Your task to perform on an android device: delete browsing data in the chrome app Image 0: 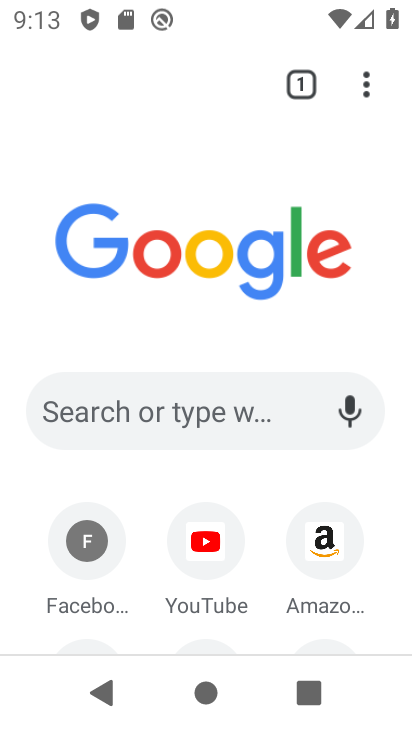
Step 0: press home button
Your task to perform on an android device: delete browsing data in the chrome app Image 1: 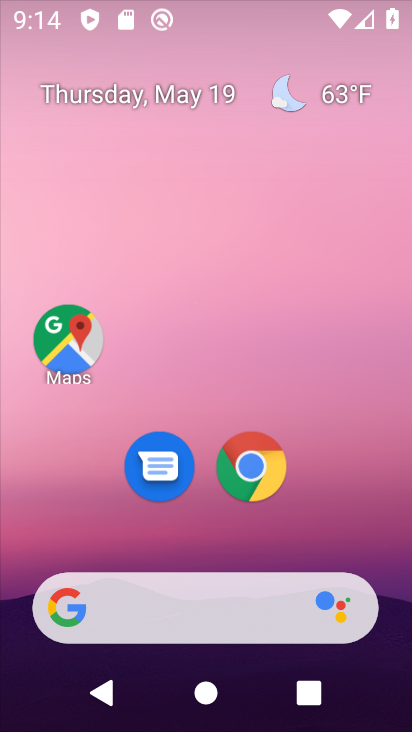
Step 1: drag from (398, 621) to (252, 76)
Your task to perform on an android device: delete browsing data in the chrome app Image 2: 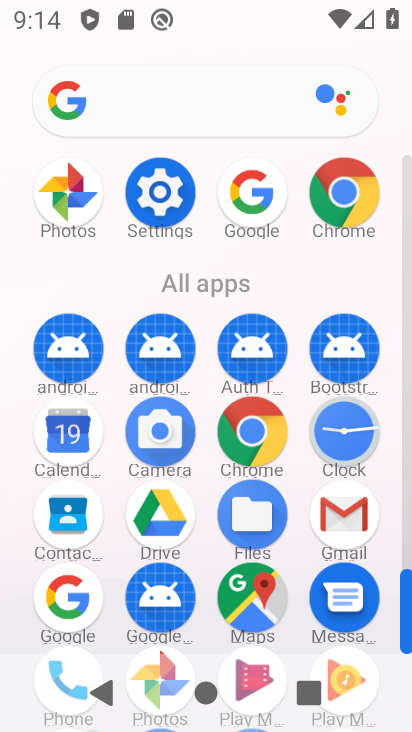
Step 2: click (331, 188)
Your task to perform on an android device: delete browsing data in the chrome app Image 3: 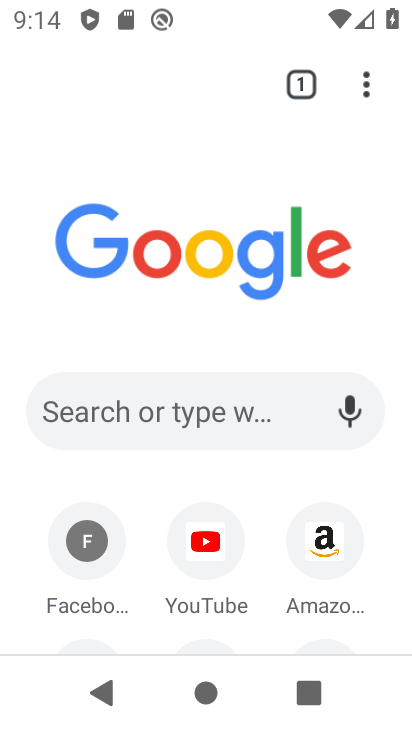
Step 3: click (362, 78)
Your task to perform on an android device: delete browsing data in the chrome app Image 4: 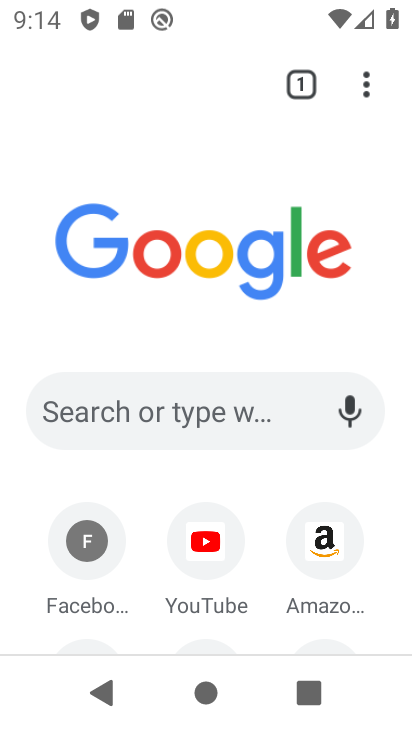
Step 4: click (372, 77)
Your task to perform on an android device: delete browsing data in the chrome app Image 5: 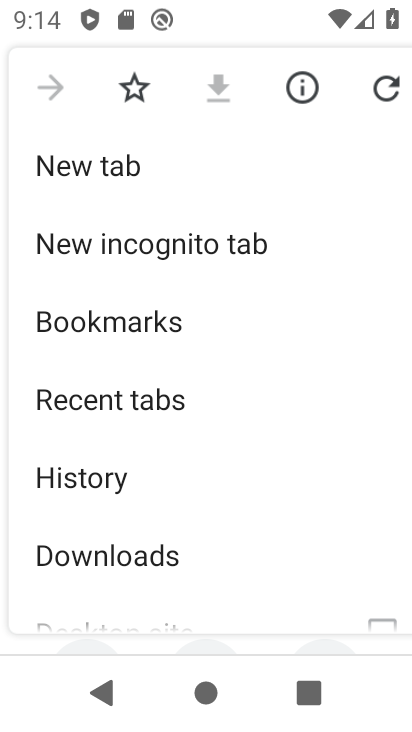
Step 5: click (136, 509)
Your task to perform on an android device: delete browsing data in the chrome app Image 6: 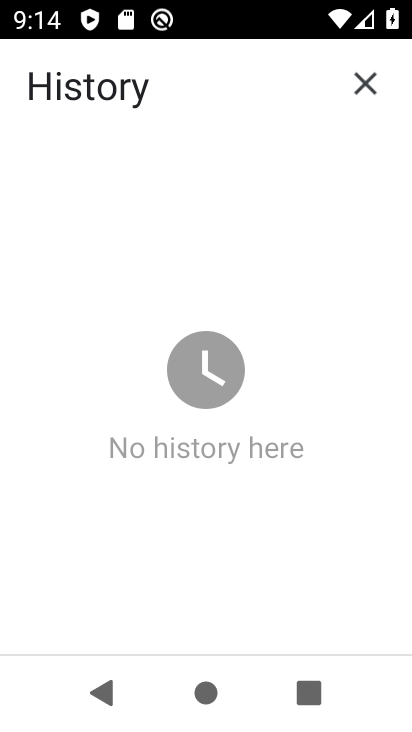
Step 6: task complete